Your task to perform on an android device: install app "Truecaller" Image 0: 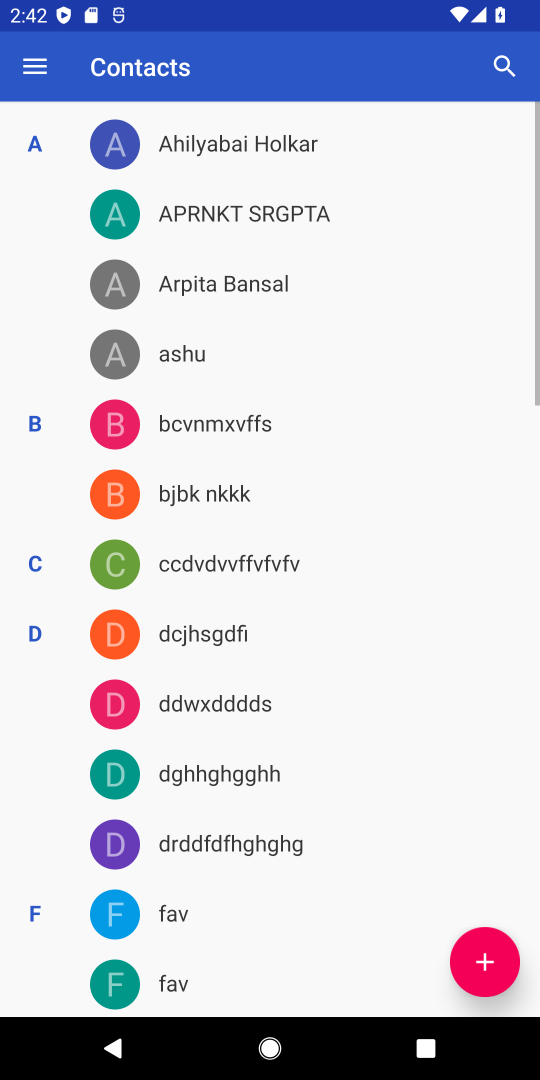
Step 0: press home button
Your task to perform on an android device: install app "Truecaller" Image 1: 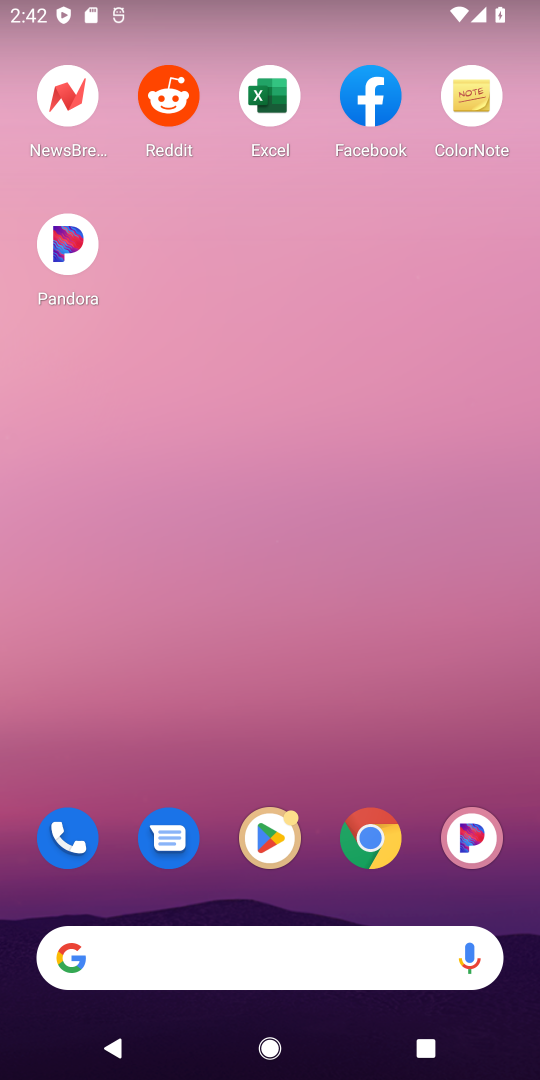
Step 1: drag from (481, 733) to (444, 89)
Your task to perform on an android device: install app "Truecaller" Image 2: 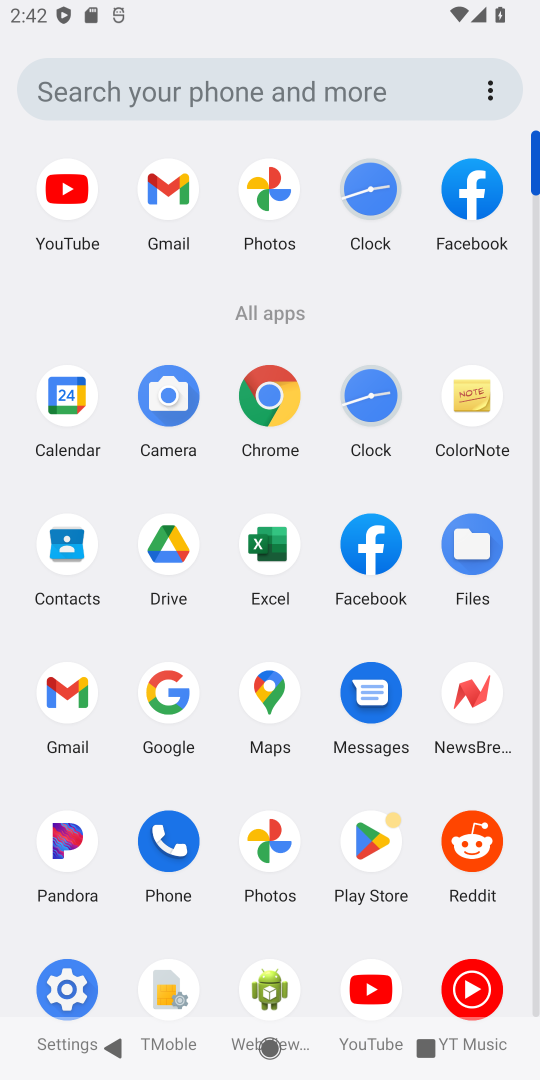
Step 2: click (373, 844)
Your task to perform on an android device: install app "Truecaller" Image 3: 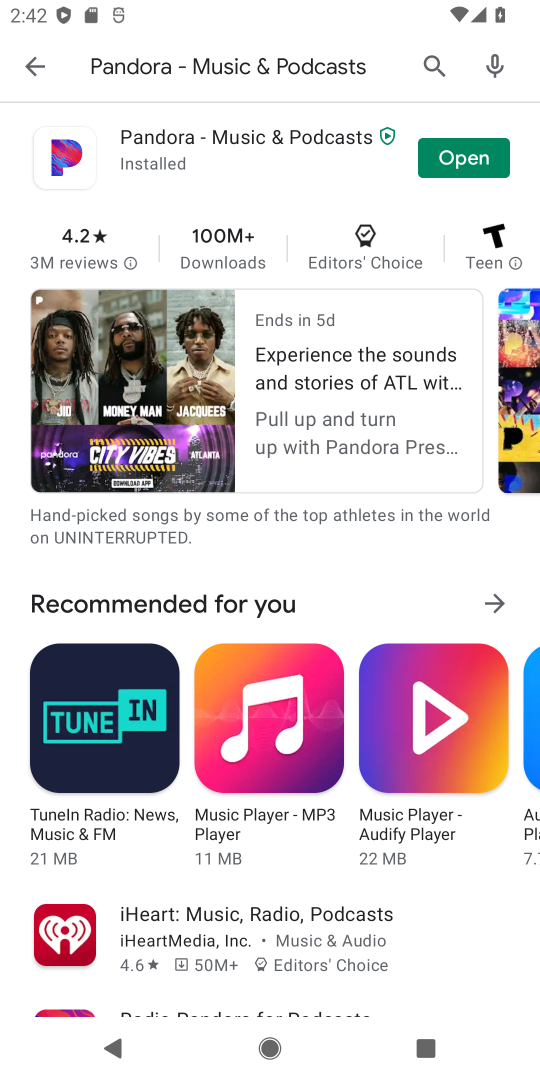
Step 3: press back button
Your task to perform on an android device: install app "Truecaller" Image 4: 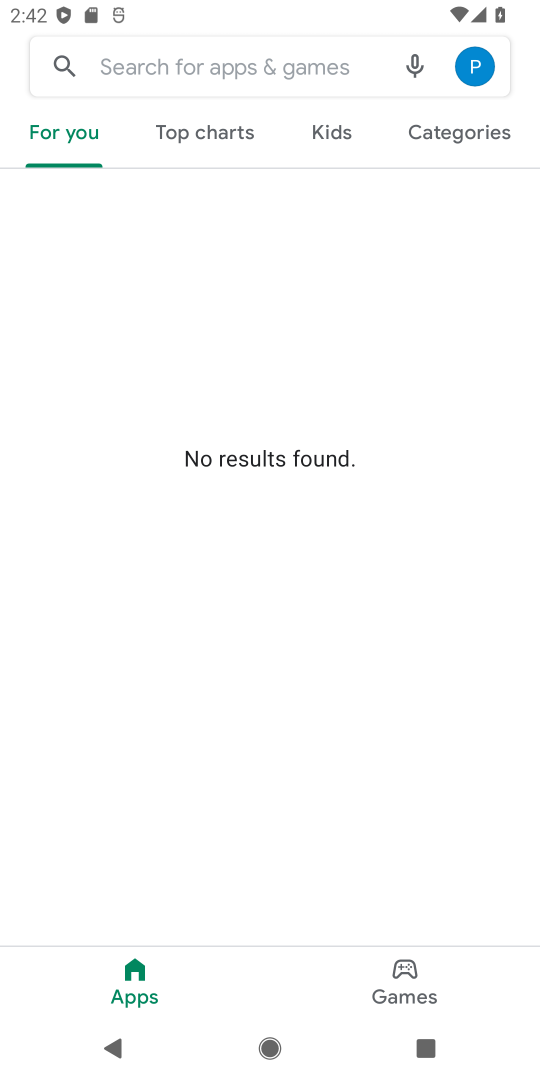
Step 4: click (308, 59)
Your task to perform on an android device: install app "Truecaller" Image 5: 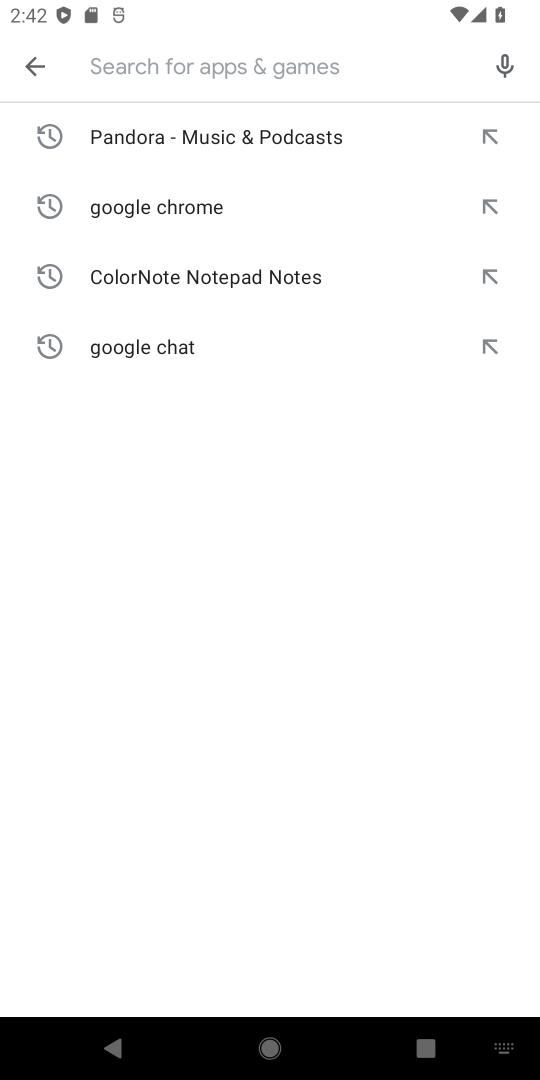
Step 5: press enter
Your task to perform on an android device: install app "Truecaller" Image 6: 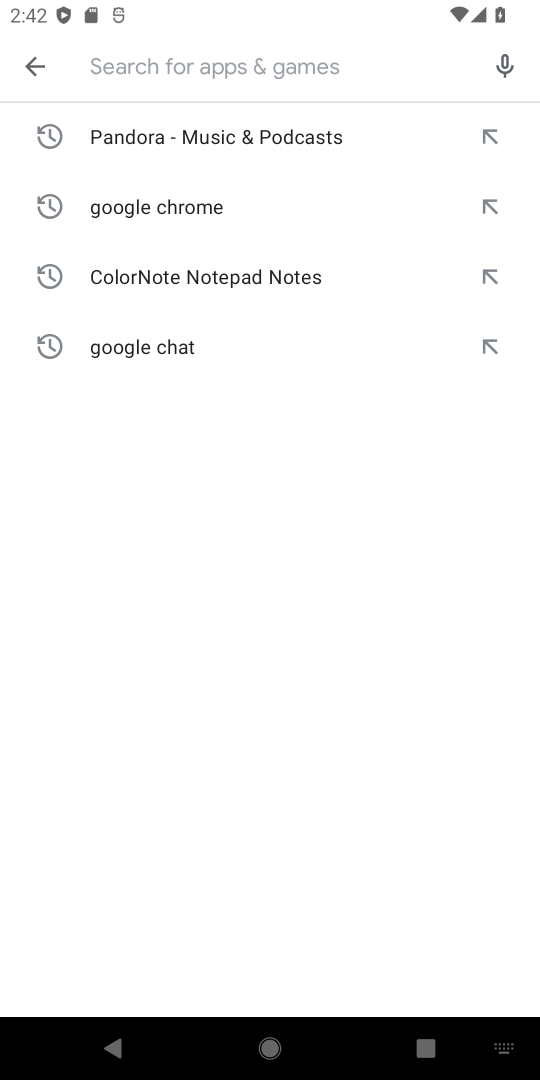
Step 6: type "truecaller"
Your task to perform on an android device: install app "Truecaller" Image 7: 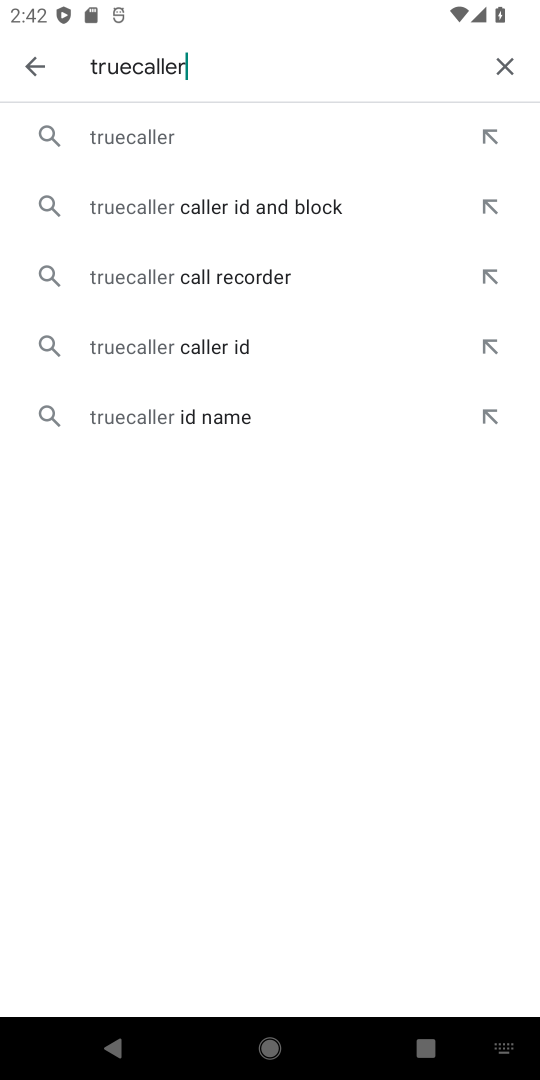
Step 7: click (201, 137)
Your task to perform on an android device: install app "Truecaller" Image 8: 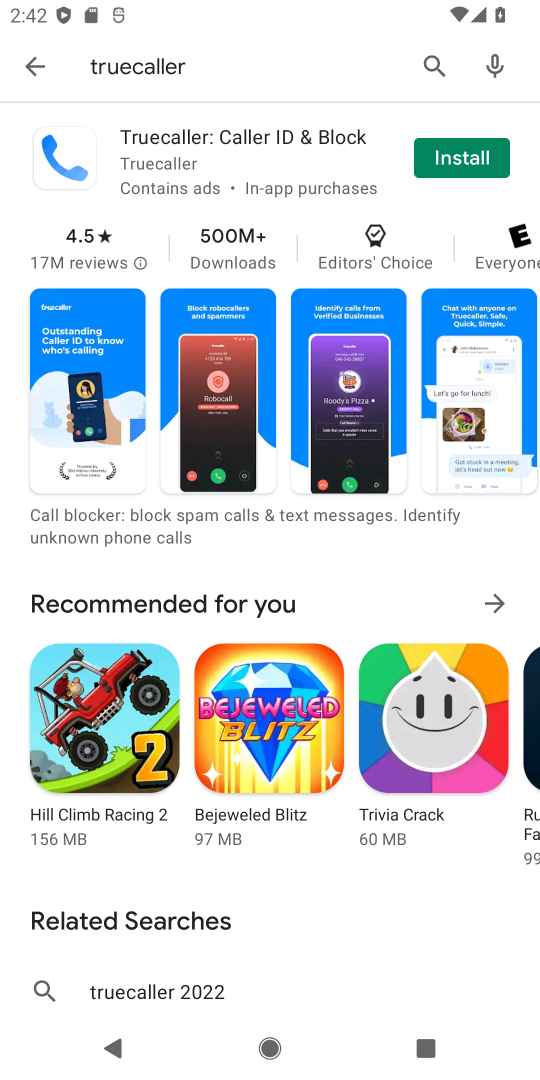
Step 8: click (467, 159)
Your task to perform on an android device: install app "Truecaller" Image 9: 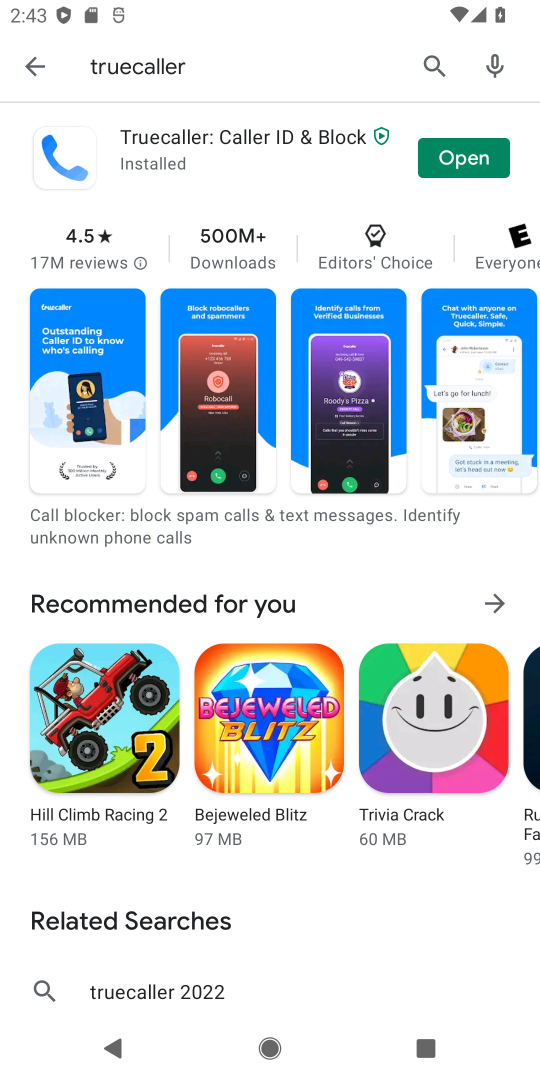
Step 9: task complete